Your task to perform on an android device: show emergency info Image 0: 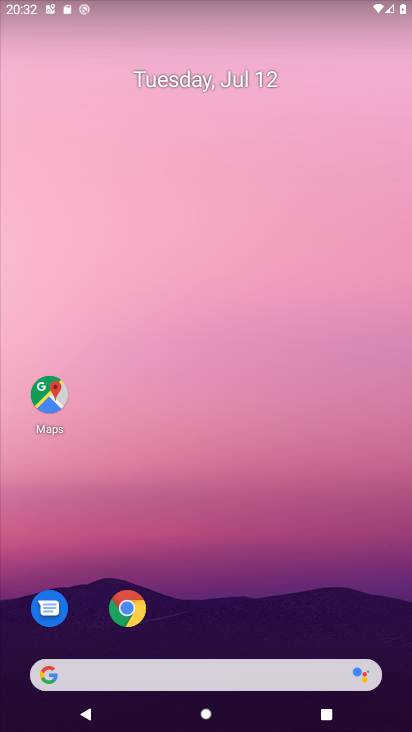
Step 0: drag from (163, 667) to (250, 148)
Your task to perform on an android device: show emergency info Image 1: 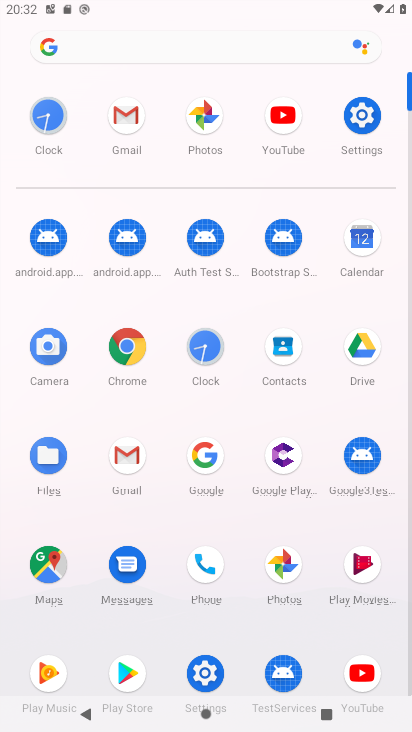
Step 1: click (350, 122)
Your task to perform on an android device: show emergency info Image 2: 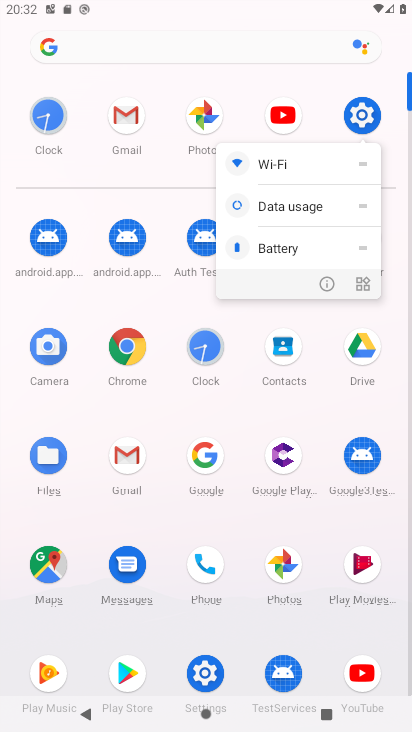
Step 2: click (360, 112)
Your task to perform on an android device: show emergency info Image 3: 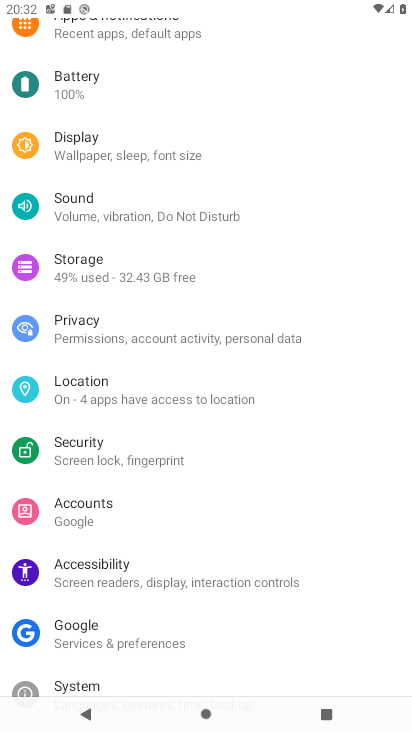
Step 3: drag from (251, 530) to (341, 117)
Your task to perform on an android device: show emergency info Image 4: 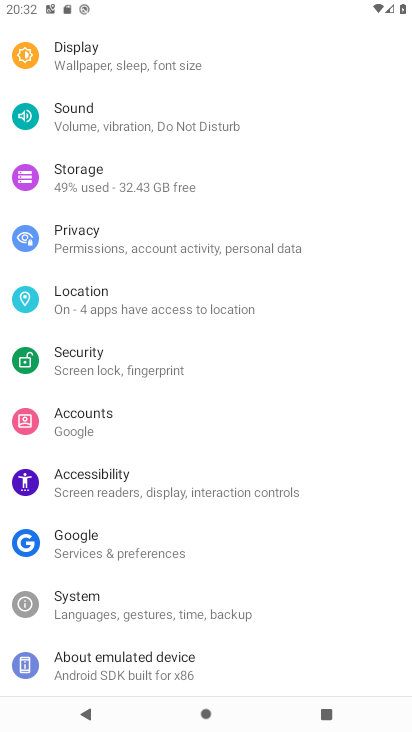
Step 4: click (129, 661)
Your task to perform on an android device: show emergency info Image 5: 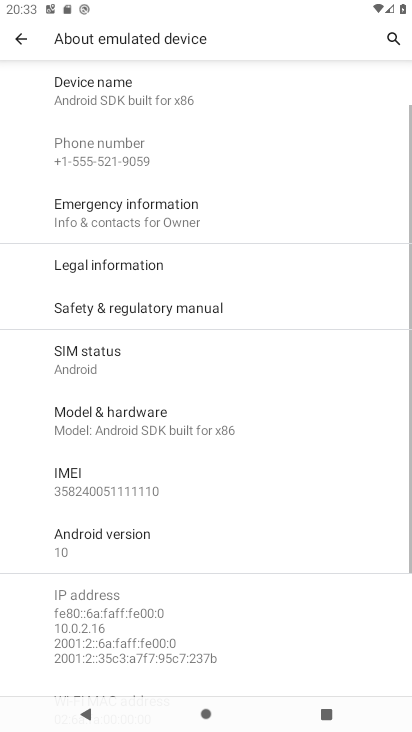
Step 5: click (143, 210)
Your task to perform on an android device: show emergency info Image 6: 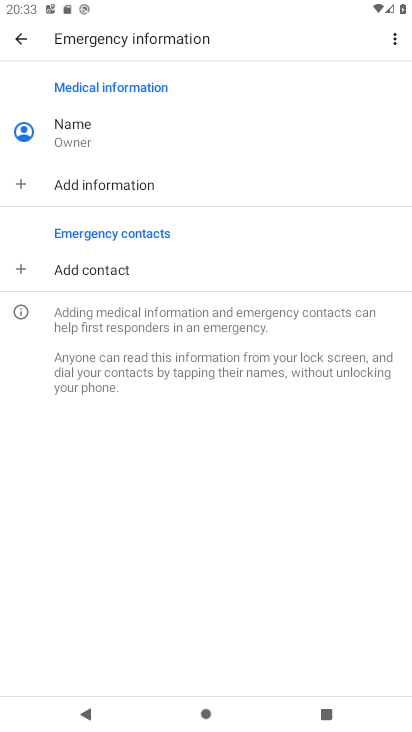
Step 6: task complete